Your task to perform on an android device: turn off airplane mode Image 0: 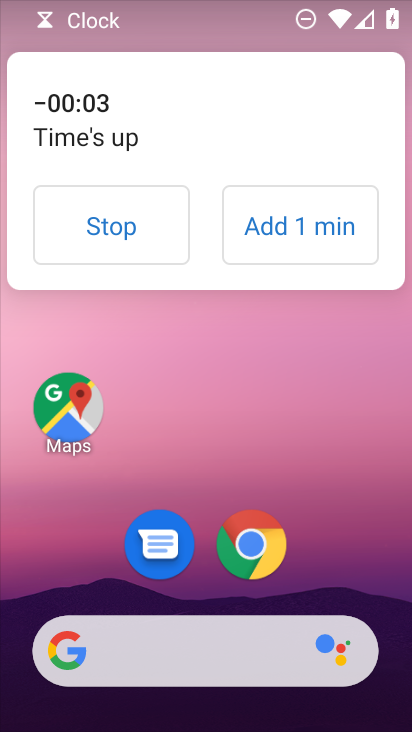
Step 0: drag from (261, 1) to (219, 681)
Your task to perform on an android device: turn off airplane mode Image 1: 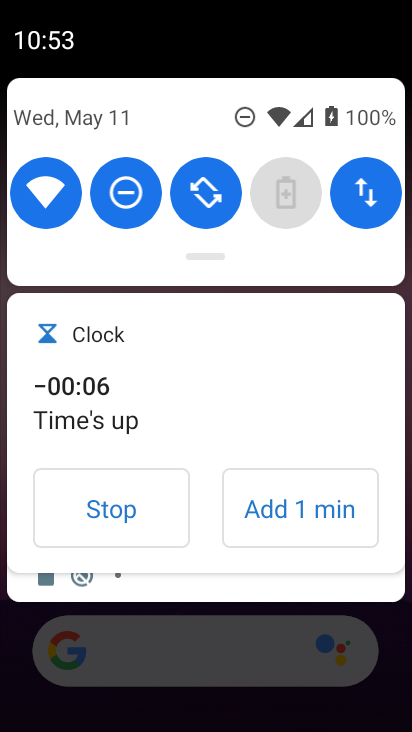
Step 1: task complete